Your task to perform on an android device: Open settings Image 0: 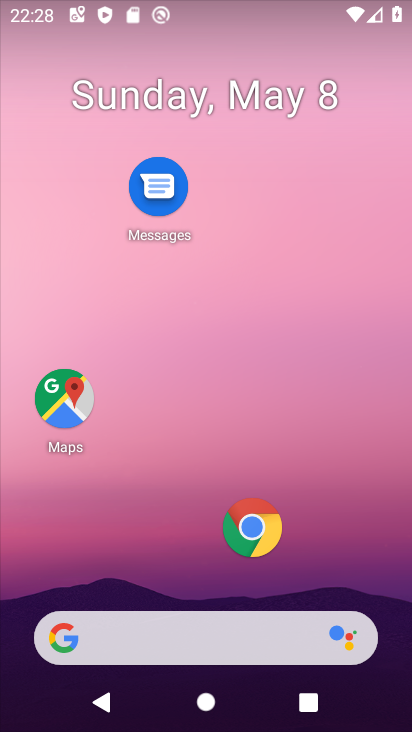
Step 0: drag from (189, 562) to (163, 56)
Your task to perform on an android device: Open settings Image 1: 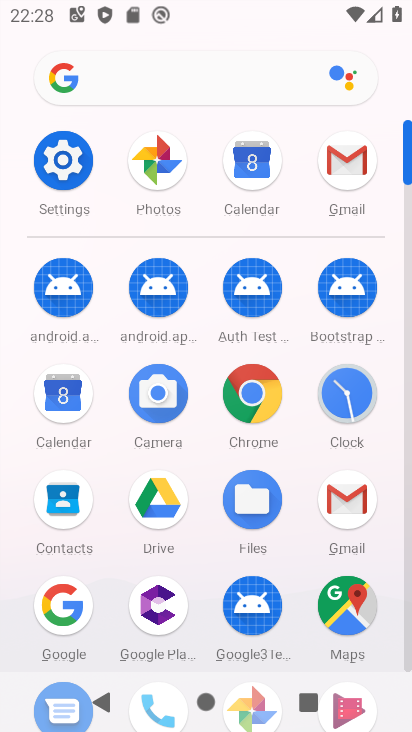
Step 1: click (65, 158)
Your task to perform on an android device: Open settings Image 2: 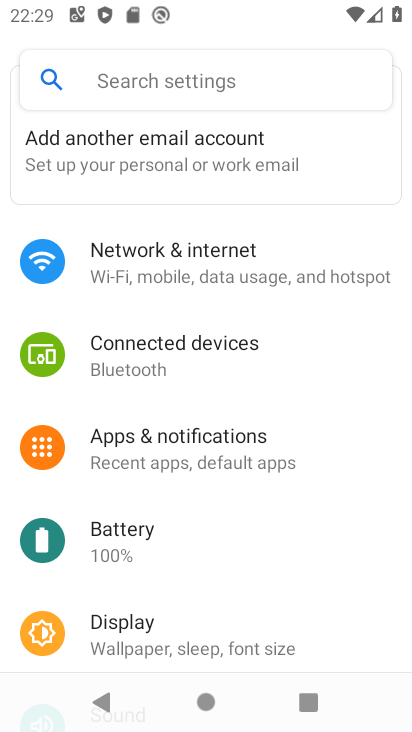
Step 2: task complete